Your task to perform on an android device: Open Google Maps Image 0: 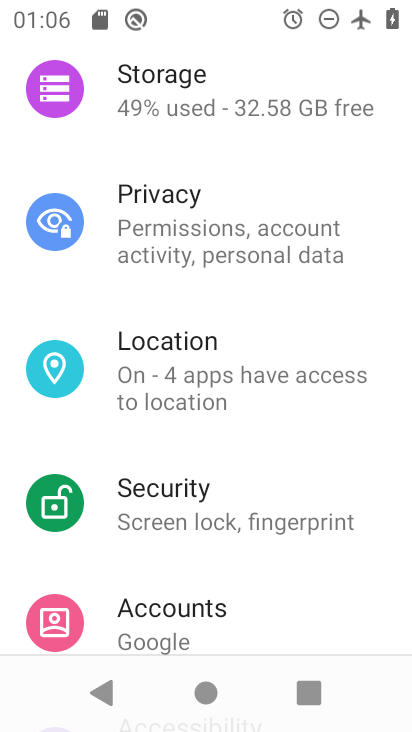
Step 0: press home button
Your task to perform on an android device: Open Google Maps Image 1: 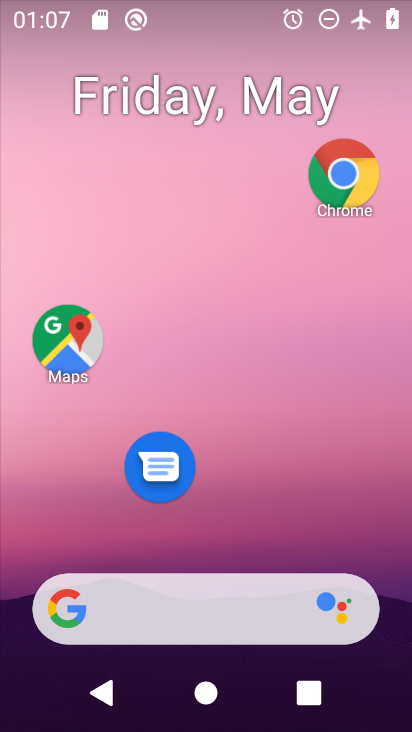
Step 1: click (65, 345)
Your task to perform on an android device: Open Google Maps Image 2: 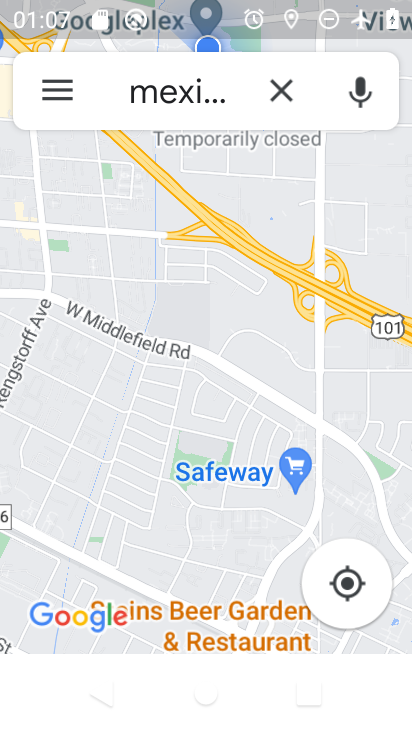
Step 2: task complete